Your task to perform on an android device: Search for seafood restaurants on Google Maps Image 0: 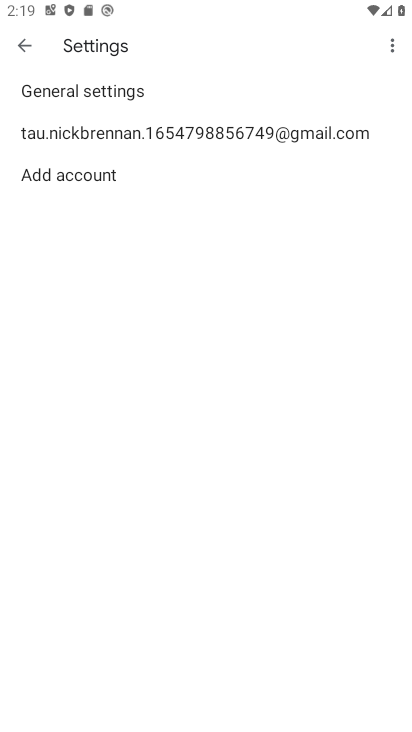
Step 0: press home button
Your task to perform on an android device: Search for seafood restaurants on Google Maps Image 1: 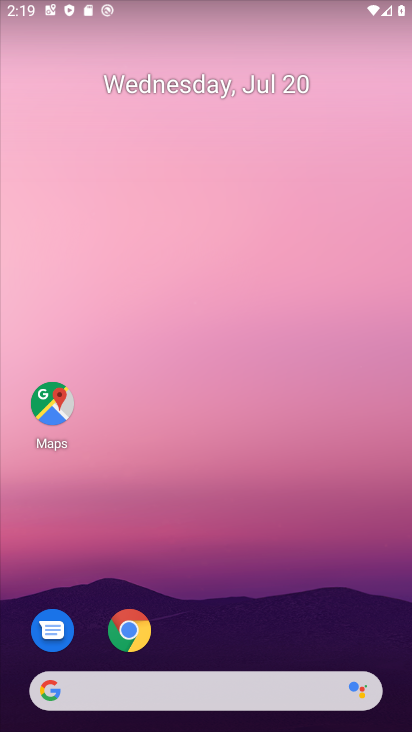
Step 1: drag from (356, 624) to (369, 112)
Your task to perform on an android device: Search for seafood restaurants on Google Maps Image 2: 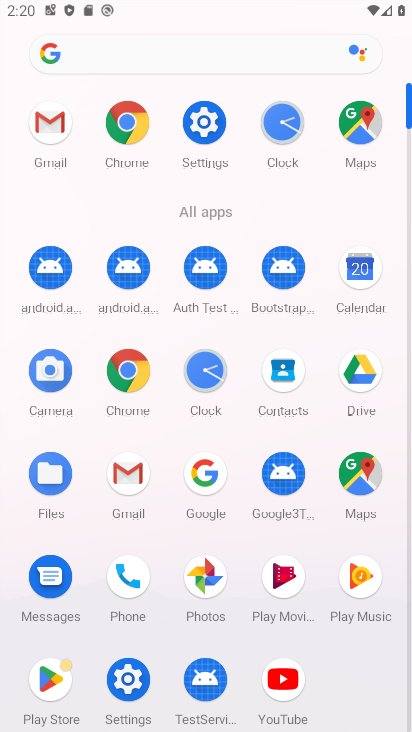
Step 2: click (365, 476)
Your task to perform on an android device: Search for seafood restaurants on Google Maps Image 3: 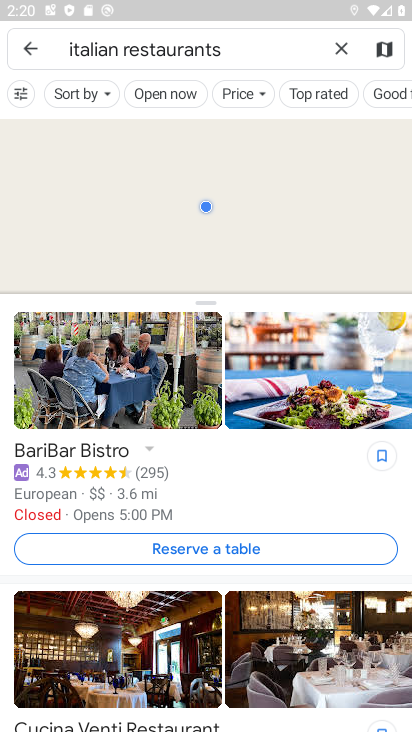
Step 3: press back button
Your task to perform on an android device: Search for seafood restaurants on Google Maps Image 4: 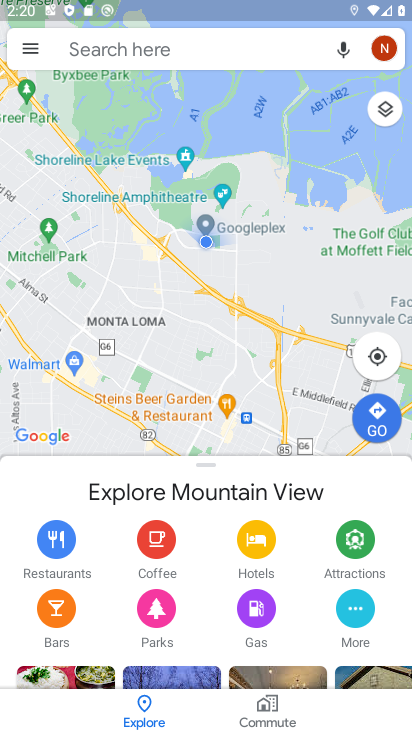
Step 4: click (238, 45)
Your task to perform on an android device: Search for seafood restaurants on Google Maps Image 5: 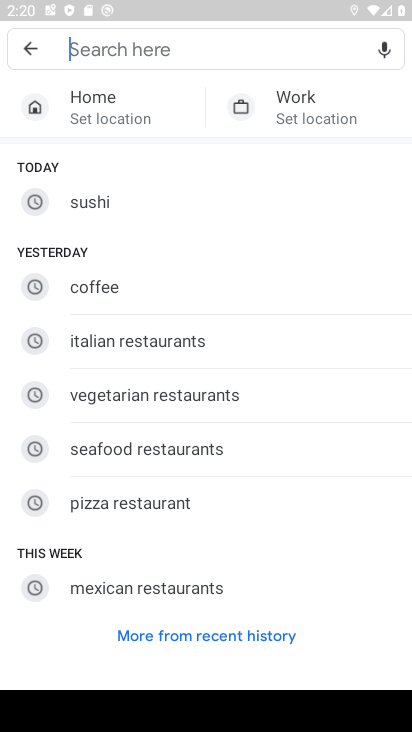
Step 5: type "seafood restaurants"
Your task to perform on an android device: Search for seafood restaurants on Google Maps Image 6: 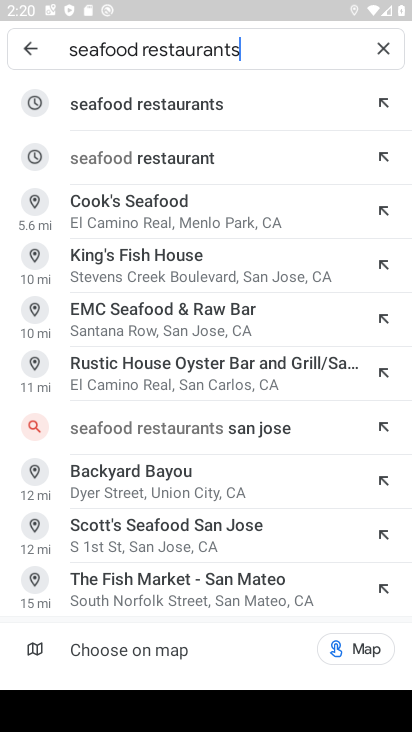
Step 6: click (243, 103)
Your task to perform on an android device: Search for seafood restaurants on Google Maps Image 7: 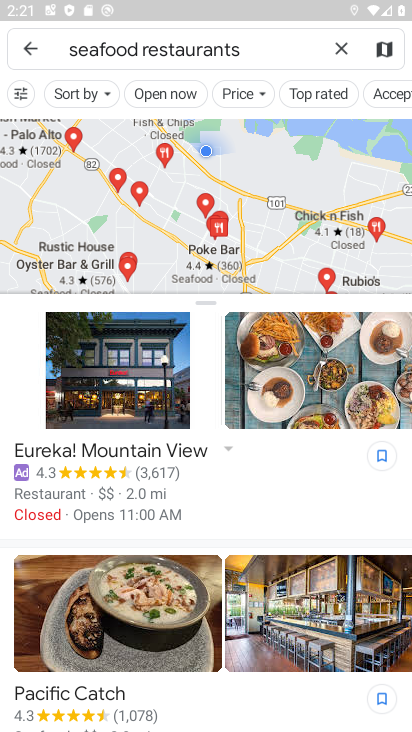
Step 7: task complete